Your task to perform on an android device: turn off location history Image 0: 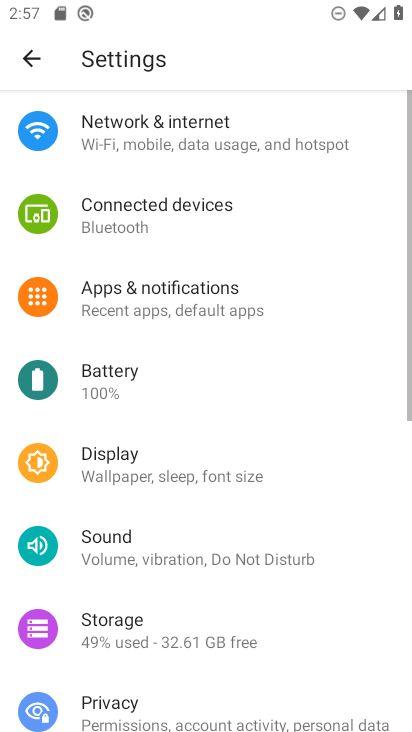
Step 0: press home button
Your task to perform on an android device: turn off location history Image 1: 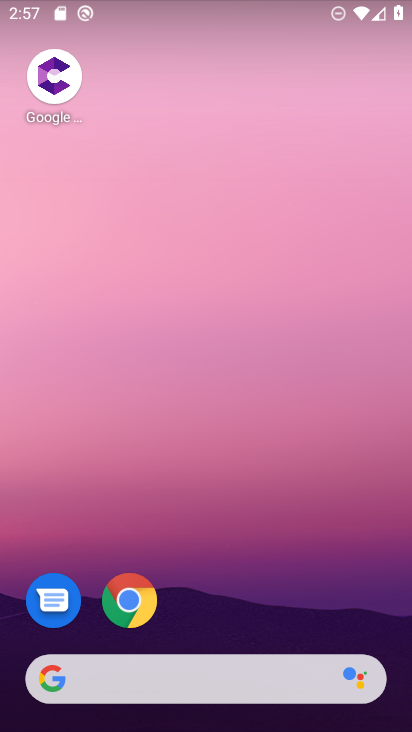
Step 1: drag from (194, 638) to (172, 136)
Your task to perform on an android device: turn off location history Image 2: 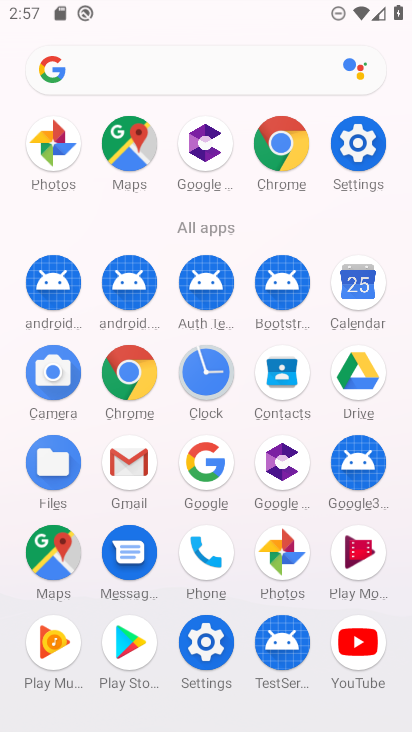
Step 2: click (197, 641)
Your task to perform on an android device: turn off location history Image 3: 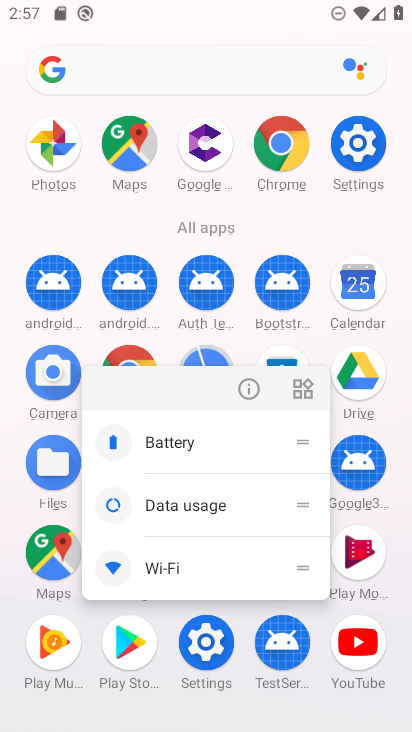
Step 3: click (206, 637)
Your task to perform on an android device: turn off location history Image 4: 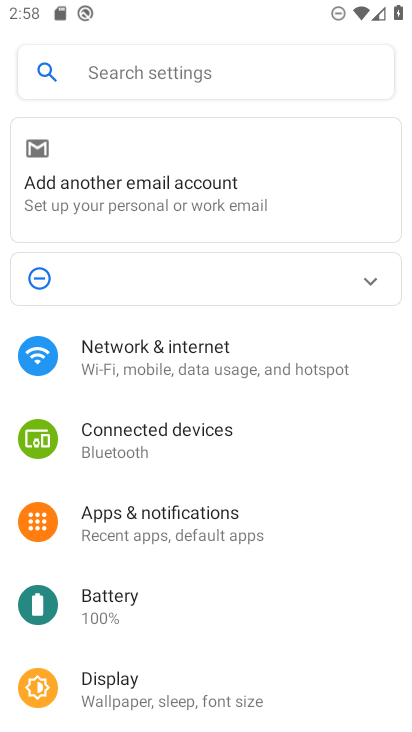
Step 4: drag from (175, 566) to (162, 131)
Your task to perform on an android device: turn off location history Image 5: 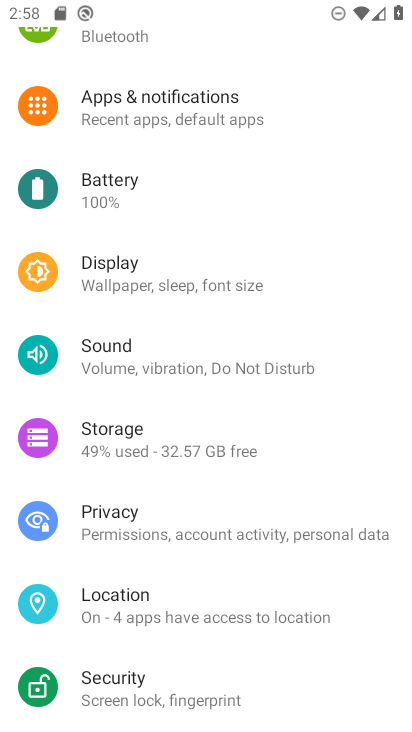
Step 5: click (122, 583)
Your task to perform on an android device: turn off location history Image 6: 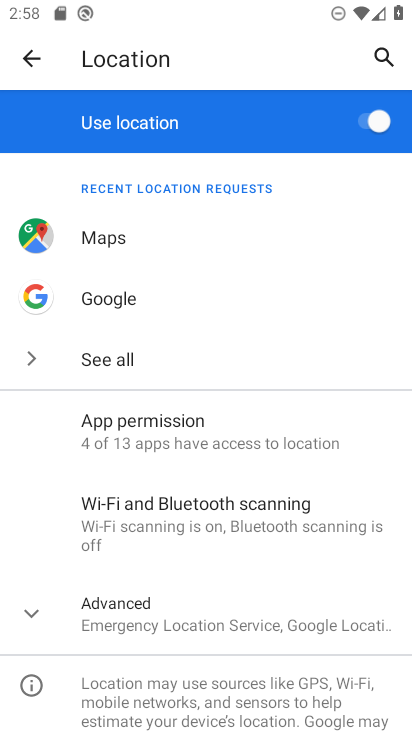
Step 6: click (136, 628)
Your task to perform on an android device: turn off location history Image 7: 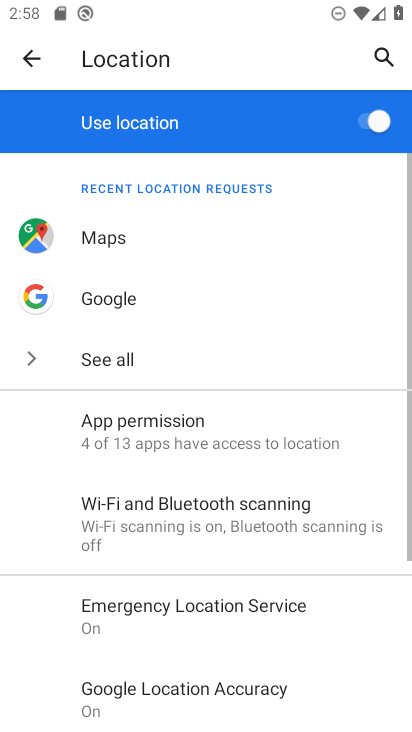
Step 7: drag from (159, 691) to (141, 247)
Your task to perform on an android device: turn off location history Image 8: 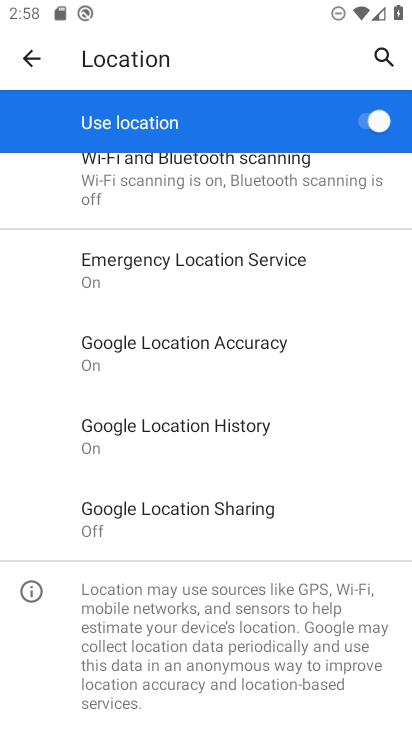
Step 8: click (224, 430)
Your task to perform on an android device: turn off location history Image 9: 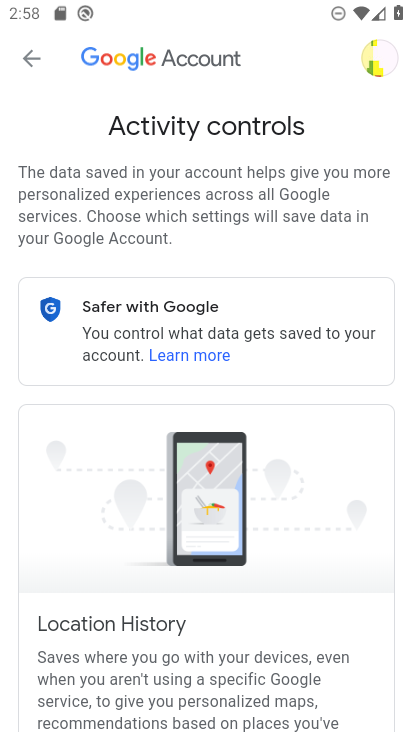
Step 9: drag from (309, 625) to (280, 108)
Your task to perform on an android device: turn off location history Image 10: 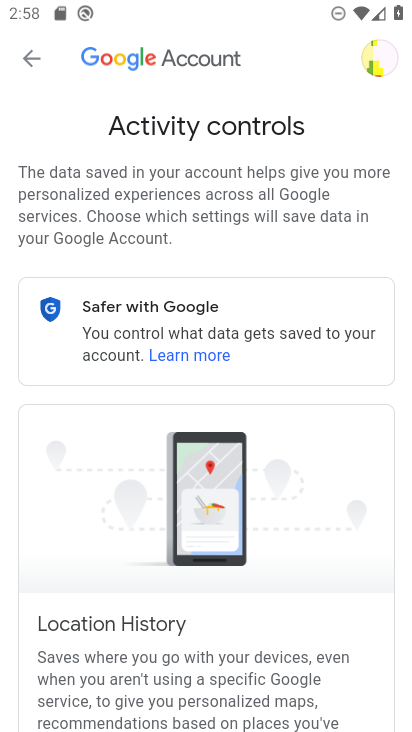
Step 10: drag from (270, 520) to (205, 66)
Your task to perform on an android device: turn off location history Image 11: 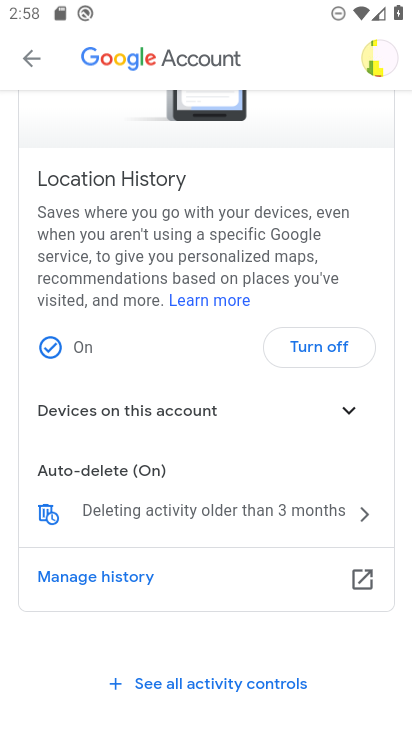
Step 11: click (316, 351)
Your task to perform on an android device: turn off location history Image 12: 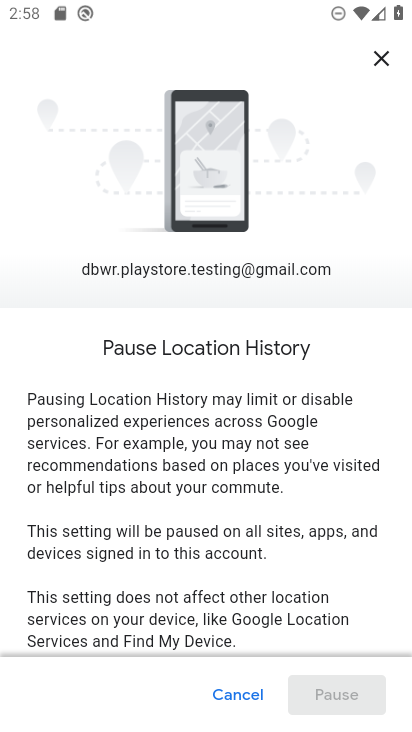
Step 12: drag from (307, 589) to (243, 86)
Your task to perform on an android device: turn off location history Image 13: 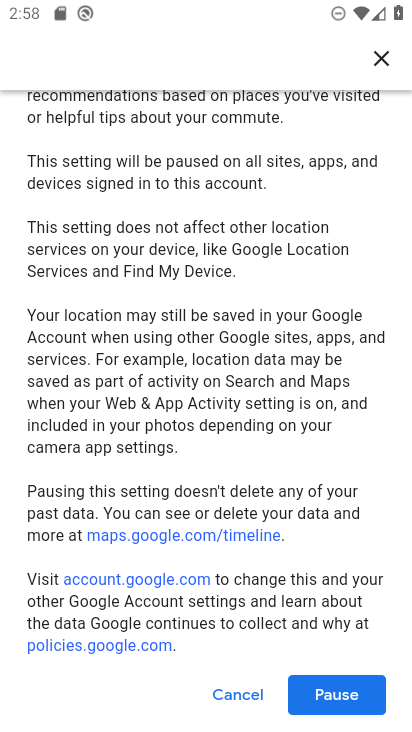
Step 13: drag from (250, 573) to (243, 294)
Your task to perform on an android device: turn off location history Image 14: 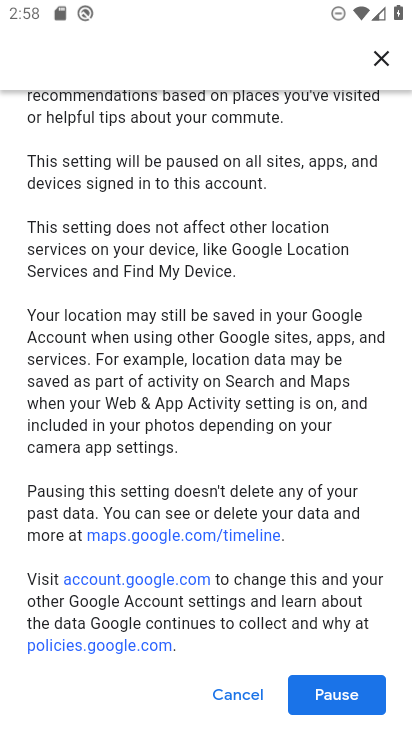
Step 14: click (338, 694)
Your task to perform on an android device: turn off location history Image 15: 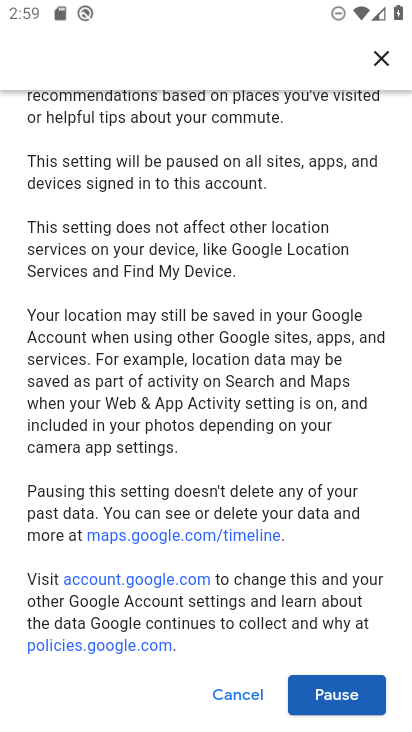
Step 15: click (351, 688)
Your task to perform on an android device: turn off location history Image 16: 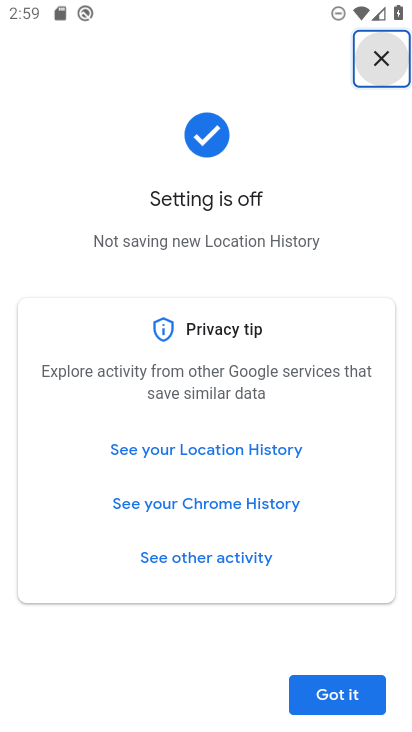
Step 16: click (317, 686)
Your task to perform on an android device: turn off location history Image 17: 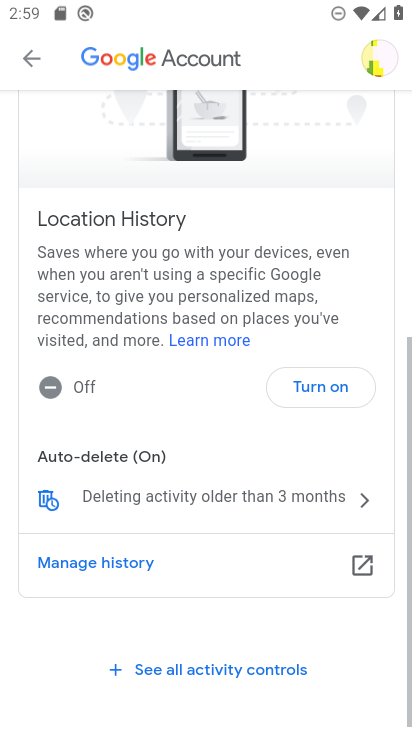
Step 17: task complete